Your task to perform on an android device: Open calendar and show me the third week of next month Image 0: 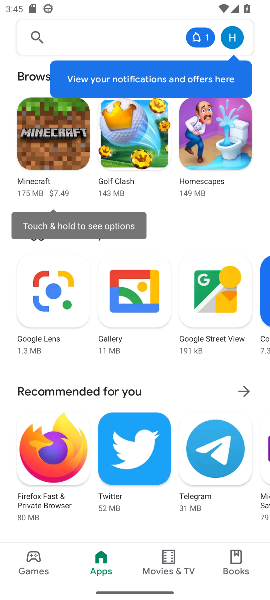
Step 0: press home button
Your task to perform on an android device: Open calendar and show me the third week of next month Image 1: 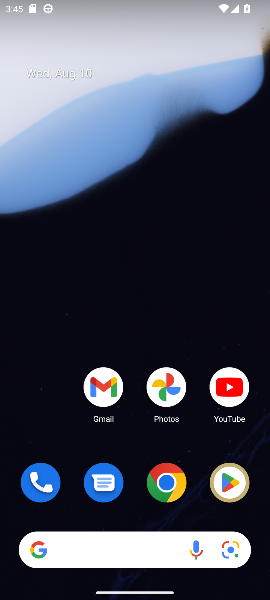
Step 1: drag from (194, 510) to (199, 31)
Your task to perform on an android device: Open calendar and show me the third week of next month Image 2: 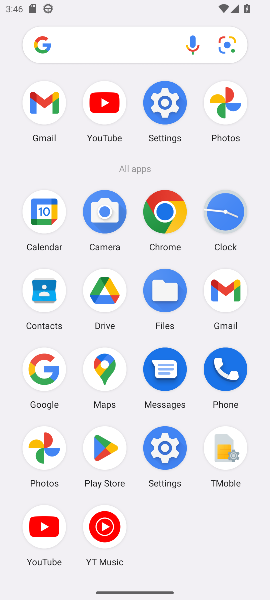
Step 2: click (40, 212)
Your task to perform on an android device: Open calendar and show me the third week of next month Image 3: 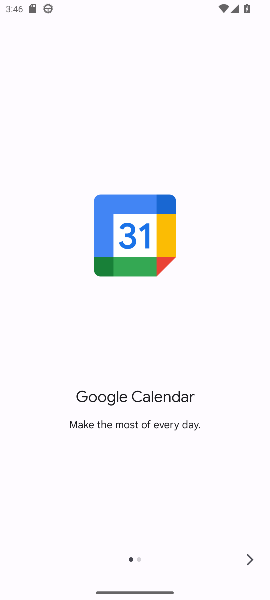
Step 3: click (250, 552)
Your task to perform on an android device: Open calendar and show me the third week of next month Image 4: 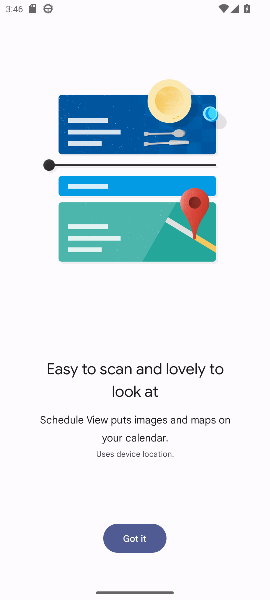
Step 4: click (142, 529)
Your task to perform on an android device: Open calendar and show me the third week of next month Image 5: 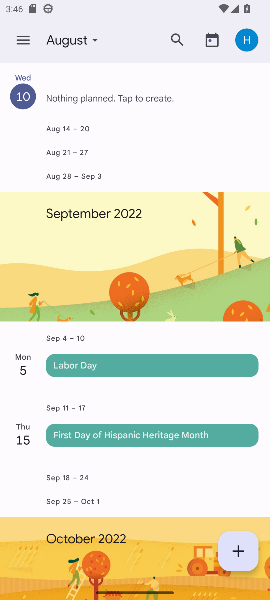
Step 5: click (70, 40)
Your task to perform on an android device: Open calendar and show me the third week of next month Image 6: 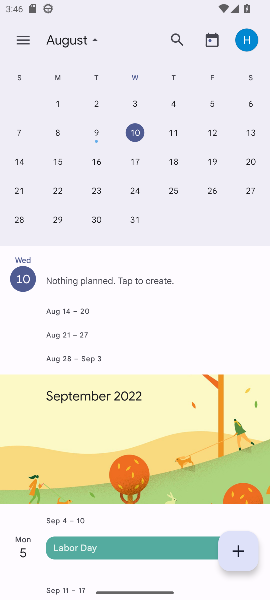
Step 6: drag from (213, 140) to (9, 146)
Your task to perform on an android device: Open calendar and show me the third week of next month Image 7: 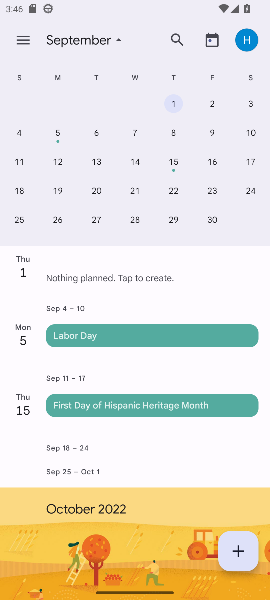
Step 7: click (209, 161)
Your task to perform on an android device: Open calendar and show me the third week of next month Image 8: 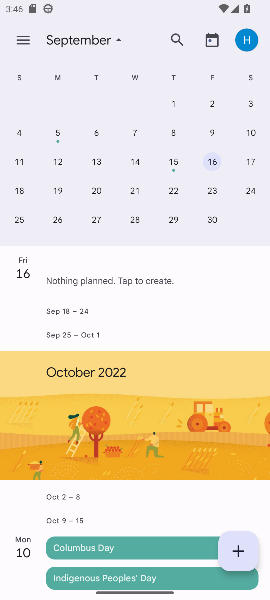
Step 8: task complete